Your task to perform on an android device: uninstall "Upside-Cash back on gas & food" Image 0: 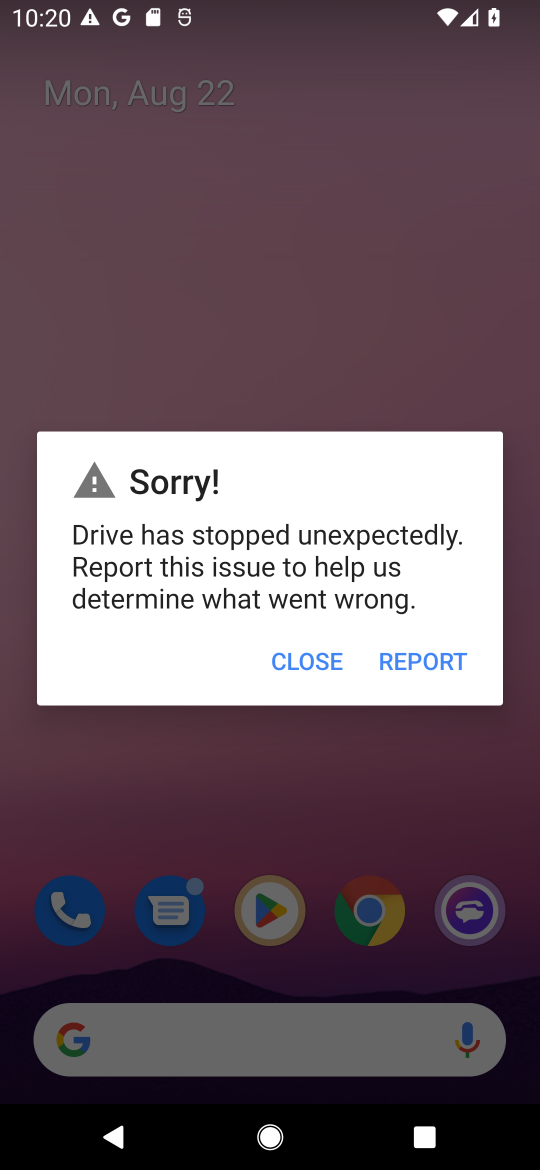
Step 0: click (314, 662)
Your task to perform on an android device: uninstall "Upside-Cash back on gas & food" Image 1: 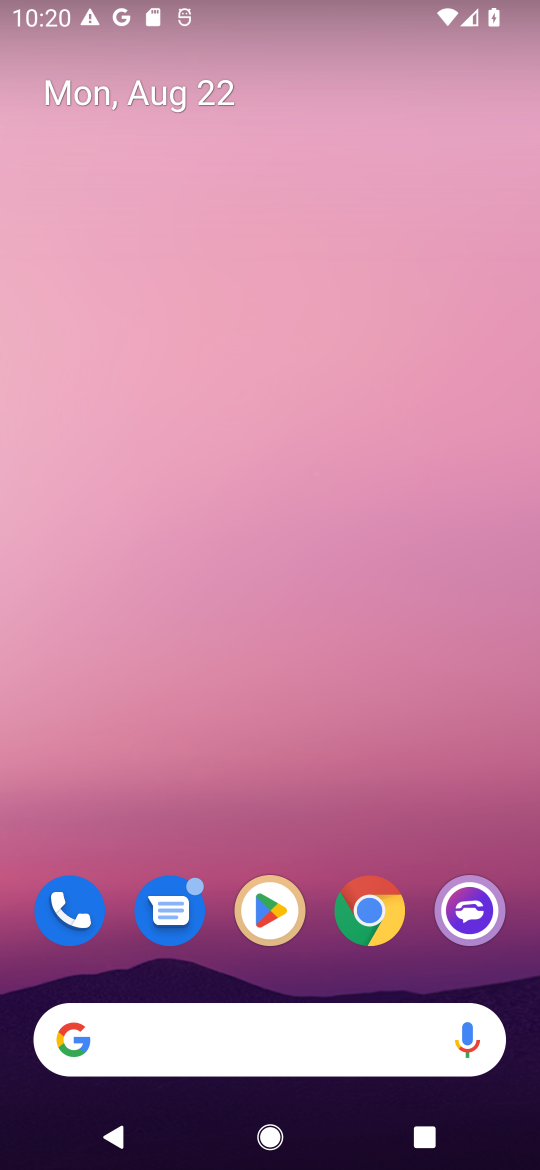
Step 1: click (267, 910)
Your task to perform on an android device: uninstall "Upside-Cash back on gas & food" Image 2: 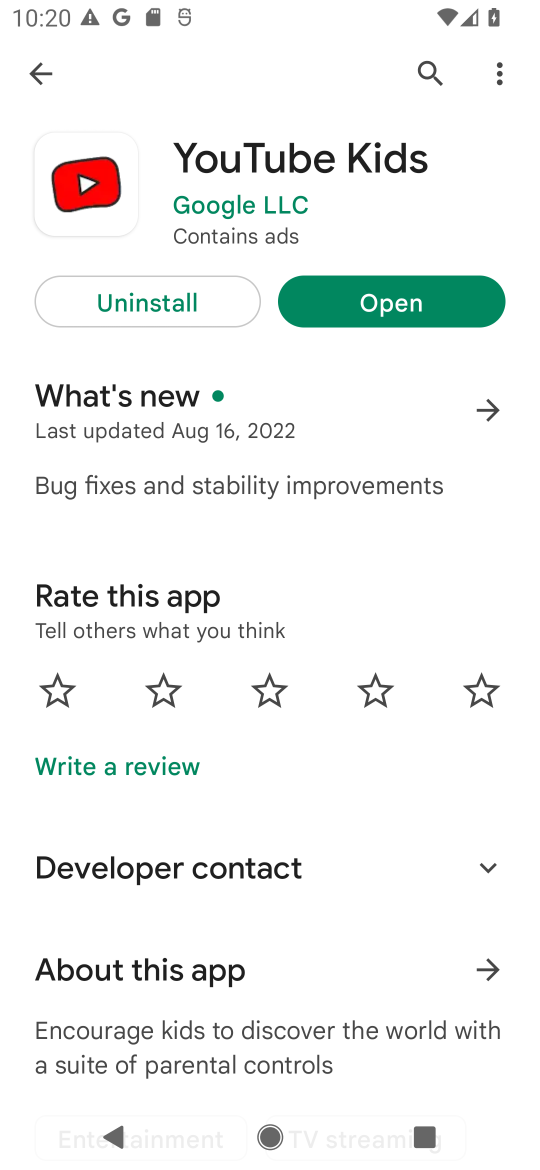
Step 2: click (422, 79)
Your task to perform on an android device: uninstall "Upside-Cash back on gas & food" Image 3: 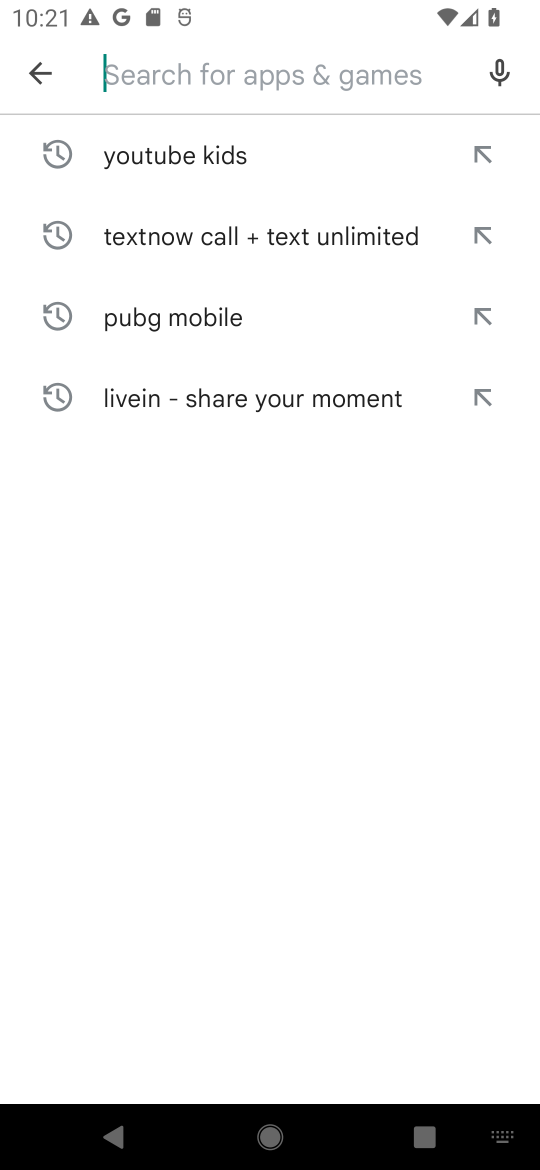
Step 3: click (447, 77)
Your task to perform on an android device: uninstall "Upside-Cash back on gas & food" Image 4: 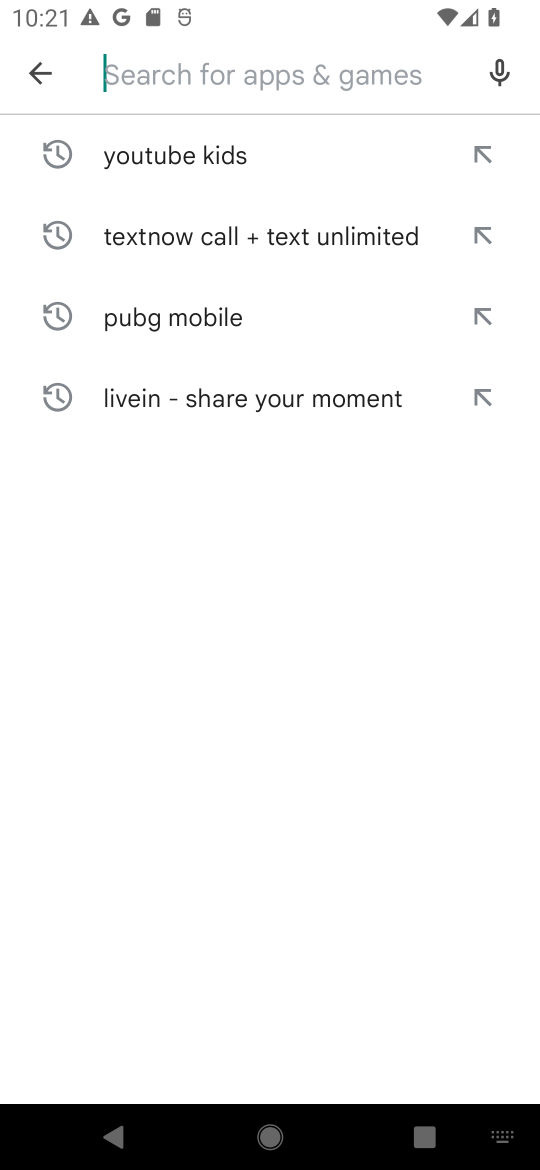
Step 4: type "Upside-Cash back on gas & food"
Your task to perform on an android device: uninstall "Upside-Cash back on gas & food" Image 5: 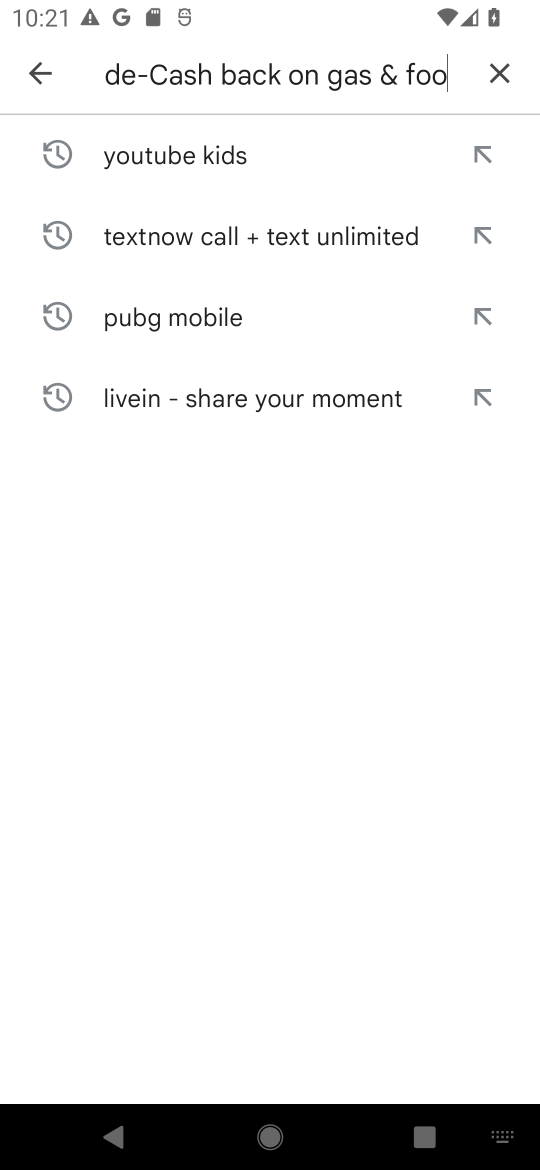
Step 5: type ""
Your task to perform on an android device: uninstall "Upside-Cash back on gas & food" Image 6: 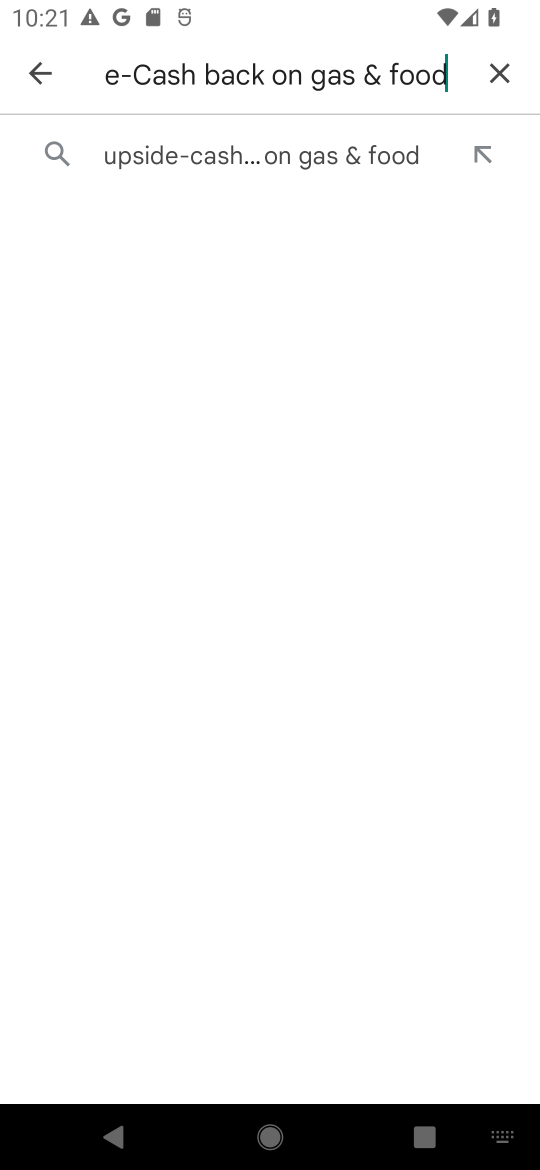
Step 6: click (209, 173)
Your task to perform on an android device: uninstall "Upside-Cash back on gas & food" Image 7: 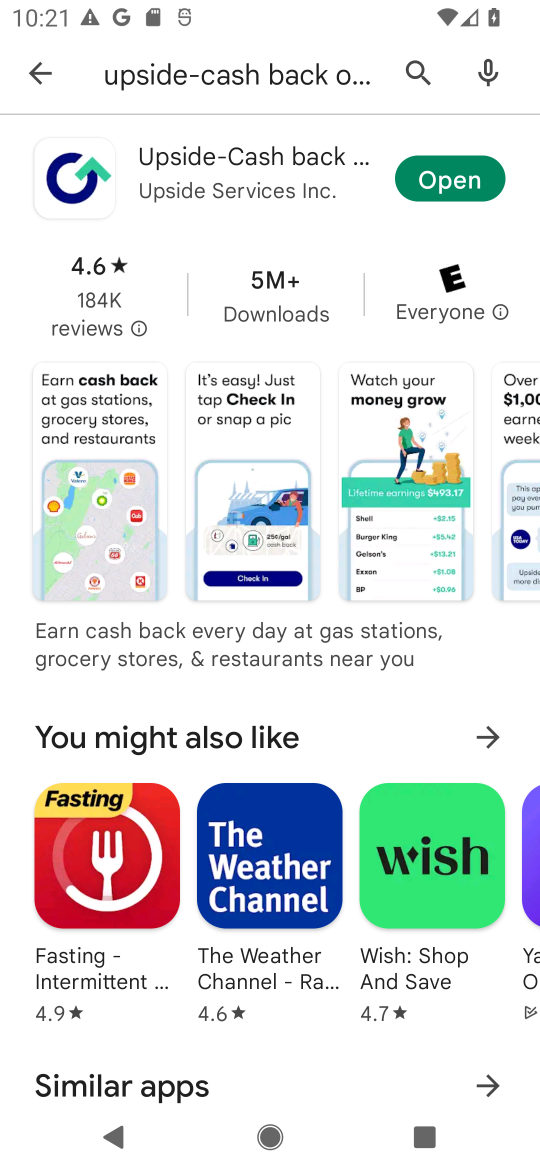
Step 7: click (239, 151)
Your task to perform on an android device: uninstall "Upside-Cash back on gas & food" Image 8: 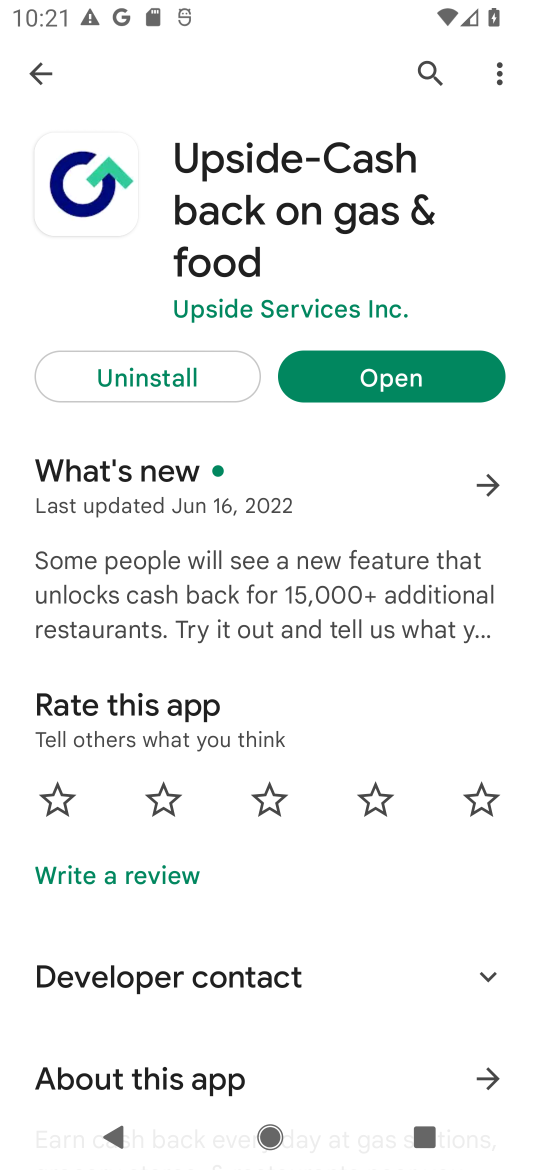
Step 8: click (177, 361)
Your task to perform on an android device: uninstall "Upside-Cash back on gas & food" Image 9: 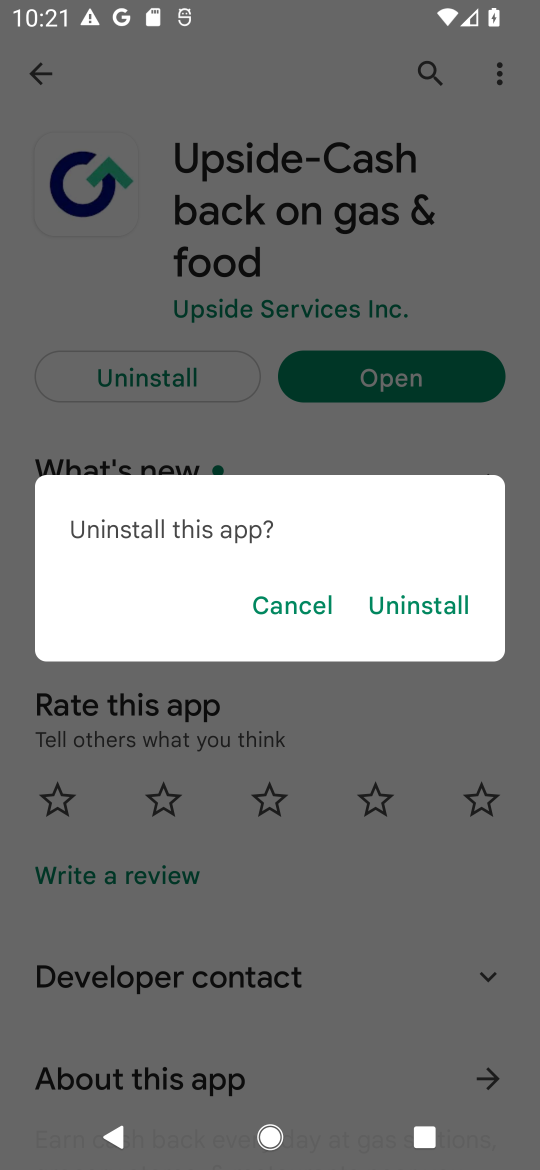
Step 9: click (416, 593)
Your task to perform on an android device: uninstall "Upside-Cash back on gas & food" Image 10: 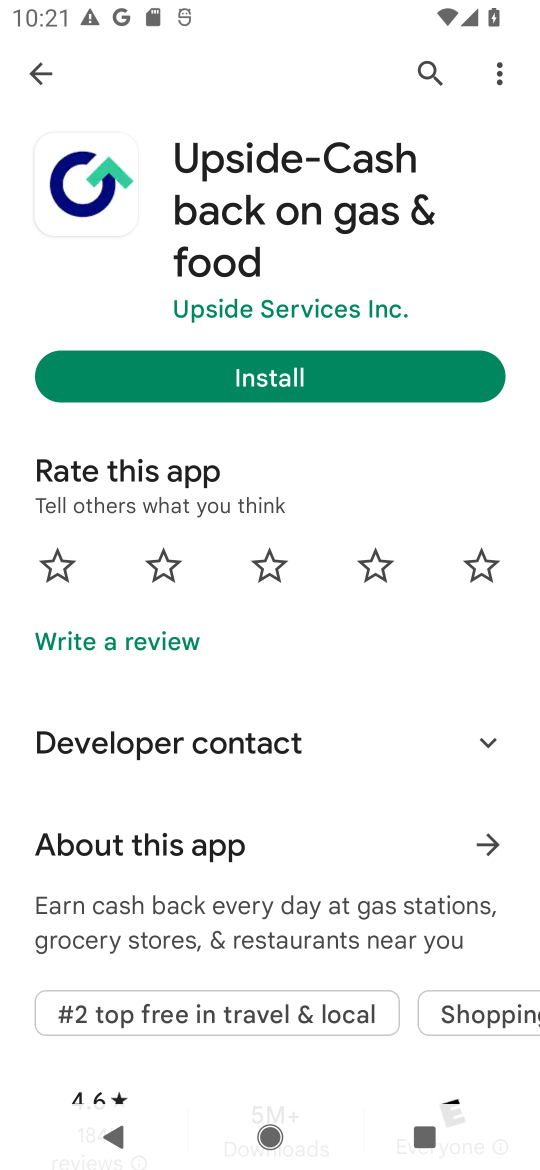
Step 10: task complete